Your task to perform on an android device: open app "Duolingo: language lessons" (install if not already installed) Image 0: 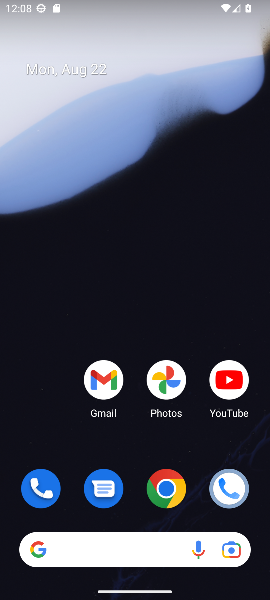
Step 0: drag from (124, 478) to (109, 1)
Your task to perform on an android device: open app "Duolingo: language lessons" (install if not already installed) Image 1: 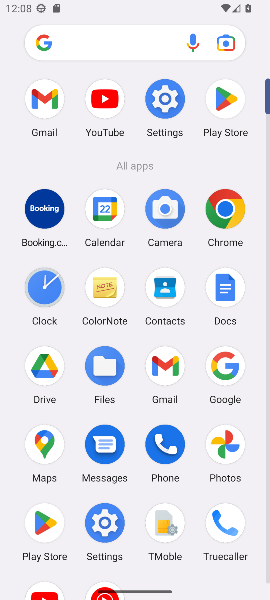
Step 1: click (221, 91)
Your task to perform on an android device: open app "Duolingo: language lessons" (install if not already installed) Image 2: 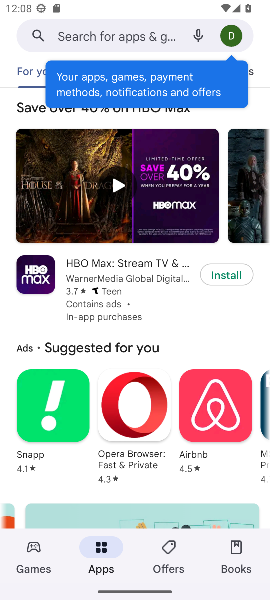
Step 2: click (127, 35)
Your task to perform on an android device: open app "Duolingo: language lessons" (install if not already installed) Image 3: 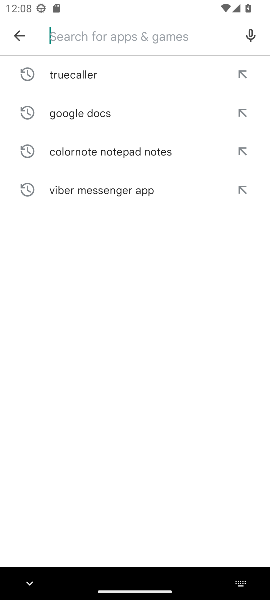
Step 3: type "Duolingo: language lessons"
Your task to perform on an android device: open app "Duolingo: language lessons" (install if not already installed) Image 4: 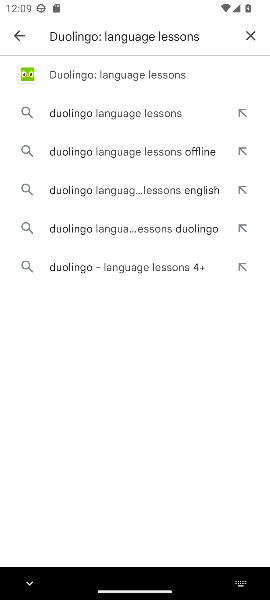
Step 4: click (116, 76)
Your task to perform on an android device: open app "Duolingo: language lessons" (install if not already installed) Image 5: 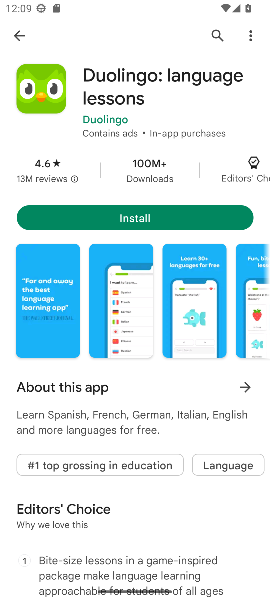
Step 5: click (135, 214)
Your task to perform on an android device: open app "Duolingo: language lessons" (install if not already installed) Image 6: 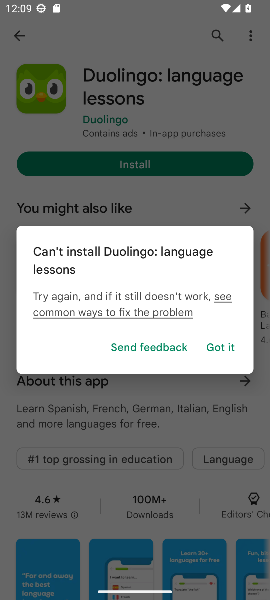
Step 6: click (217, 349)
Your task to perform on an android device: open app "Duolingo: language lessons" (install if not already installed) Image 7: 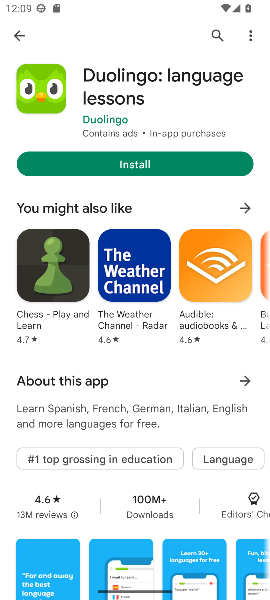
Step 7: task complete